Your task to perform on an android device: open app "Google Docs" Image 0: 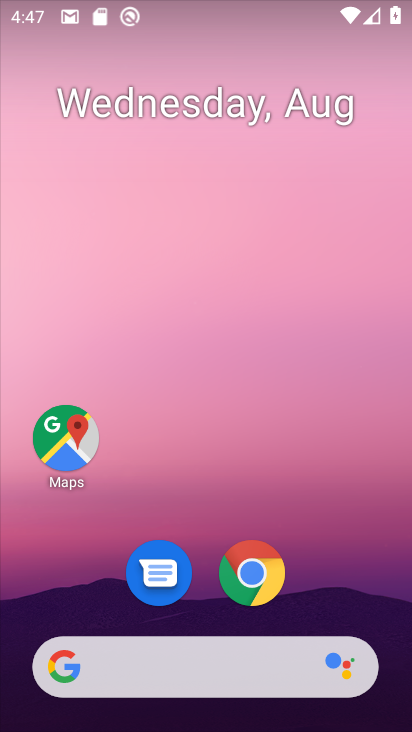
Step 0: drag from (200, 588) to (167, 225)
Your task to perform on an android device: open app "Google Docs" Image 1: 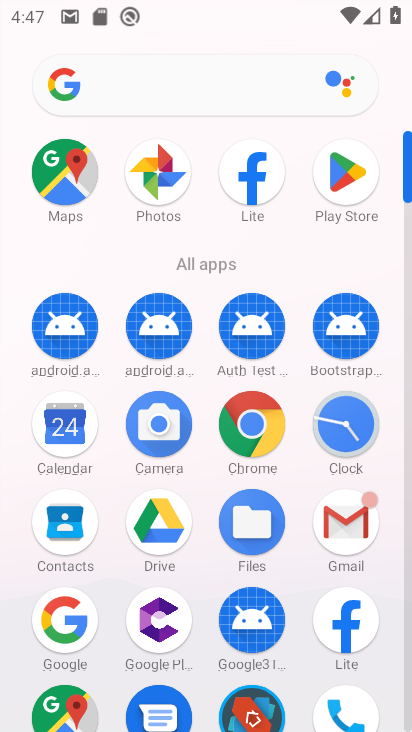
Step 1: click (356, 172)
Your task to perform on an android device: open app "Google Docs" Image 2: 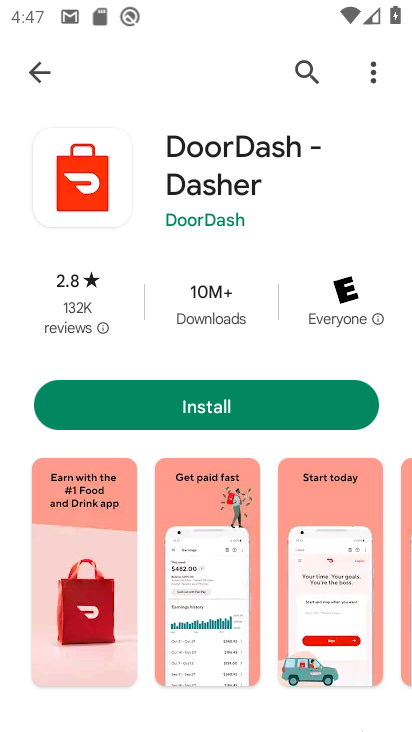
Step 2: click (43, 69)
Your task to perform on an android device: open app "Google Docs" Image 3: 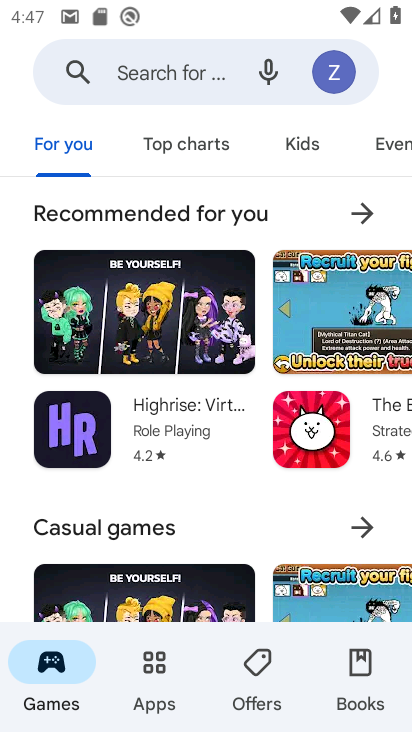
Step 3: click (199, 58)
Your task to perform on an android device: open app "Google Docs" Image 4: 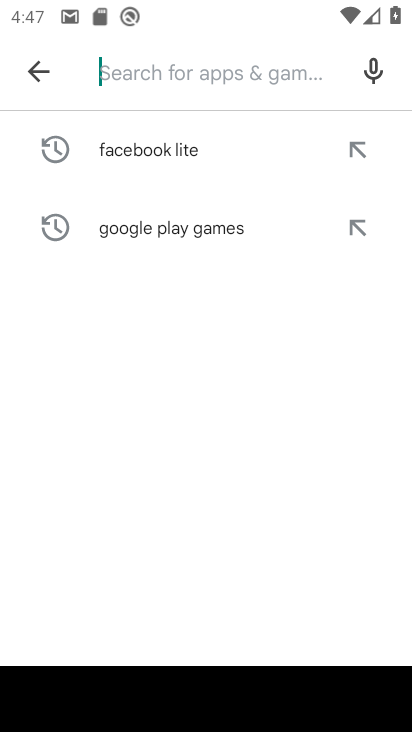
Step 4: type "Google Docs"
Your task to perform on an android device: open app "Google Docs" Image 5: 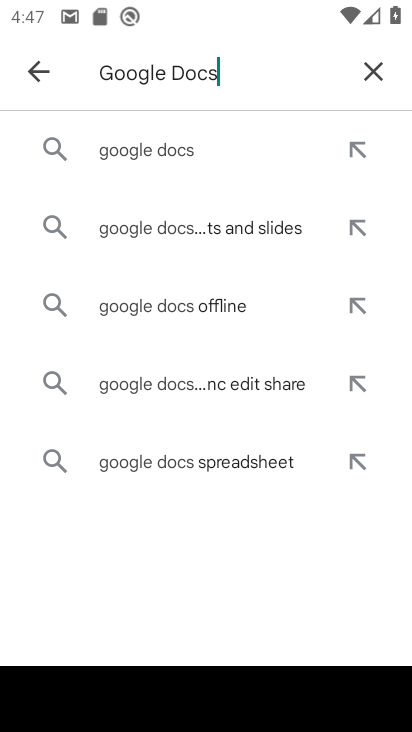
Step 5: click (160, 153)
Your task to perform on an android device: open app "Google Docs" Image 6: 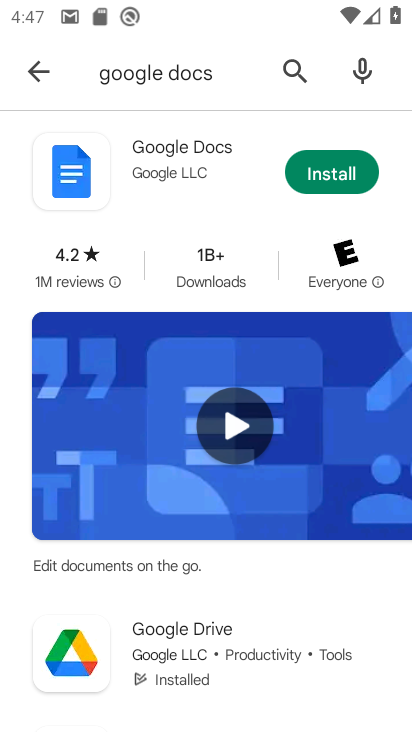
Step 6: click (357, 177)
Your task to perform on an android device: open app "Google Docs" Image 7: 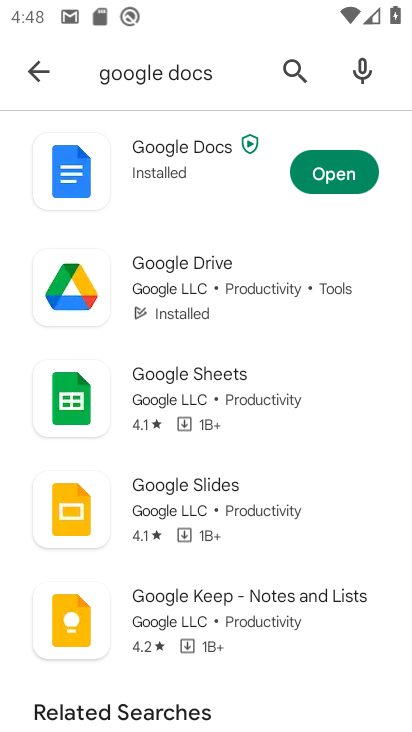
Step 7: click (357, 177)
Your task to perform on an android device: open app "Google Docs" Image 8: 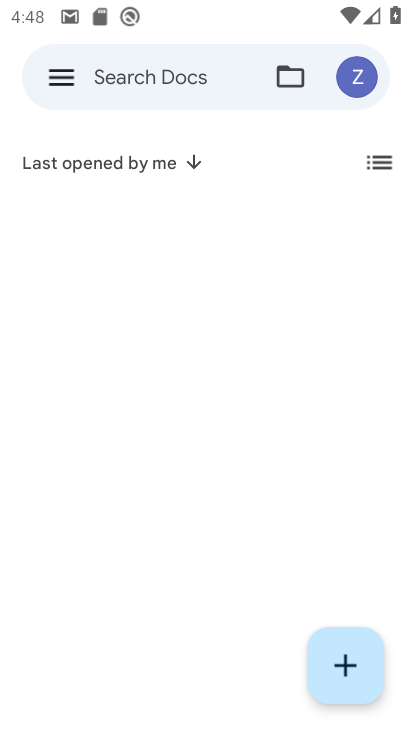
Step 8: task complete